Your task to perform on an android device: turn on notifications settings in the gmail app Image 0: 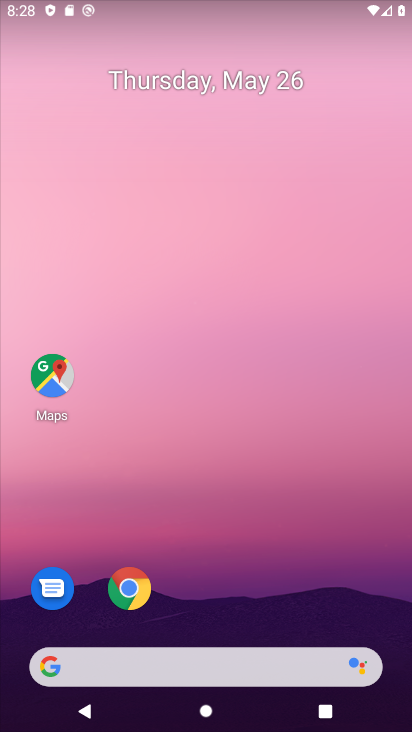
Step 0: drag from (212, 615) to (229, 8)
Your task to perform on an android device: turn on notifications settings in the gmail app Image 1: 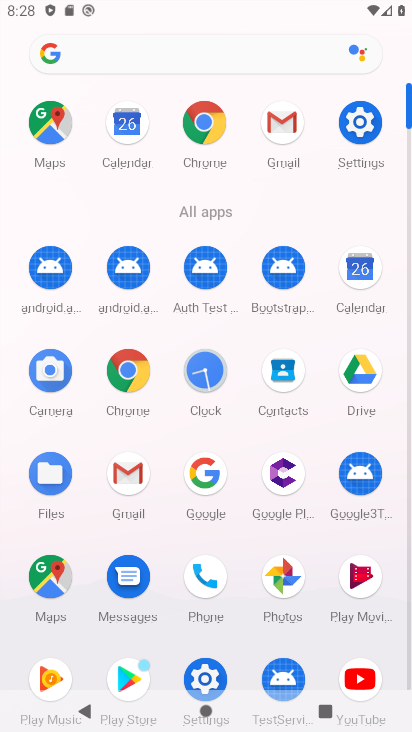
Step 1: click (122, 468)
Your task to perform on an android device: turn on notifications settings in the gmail app Image 2: 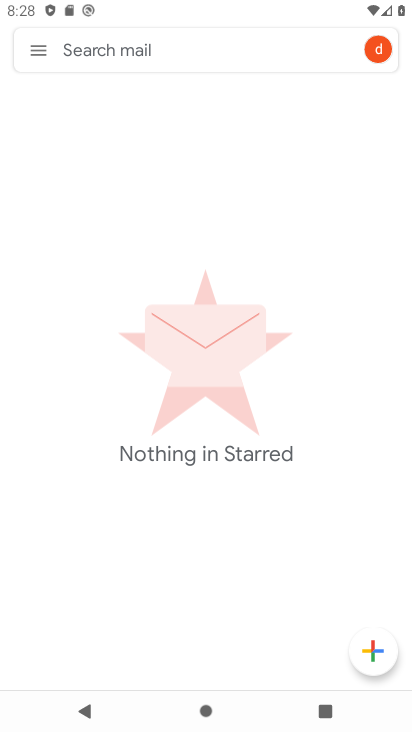
Step 2: click (33, 45)
Your task to perform on an android device: turn on notifications settings in the gmail app Image 3: 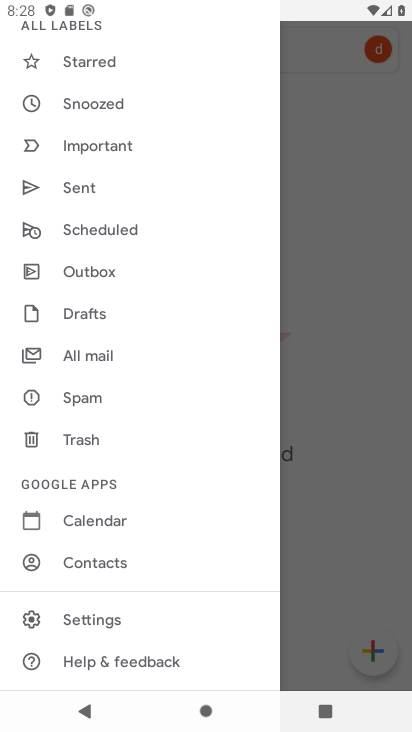
Step 3: click (80, 619)
Your task to perform on an android device: turn on notifications settings in the gmail app Image 4: 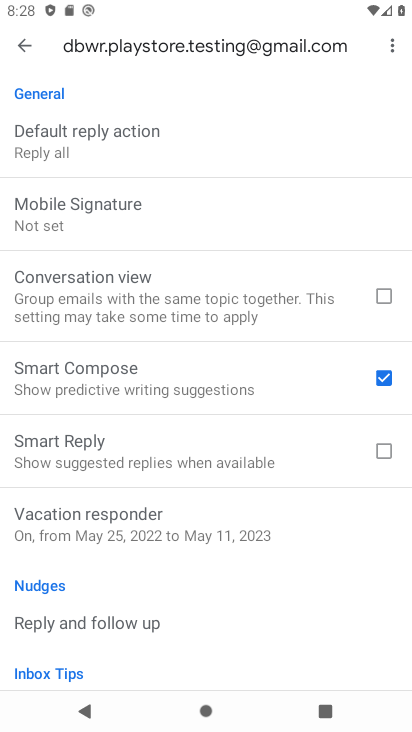
Step 4: drag from (157, 210) to (219, 652)
Your task to perform on an android device: turn on notifications settings in the gmail app Image 5: 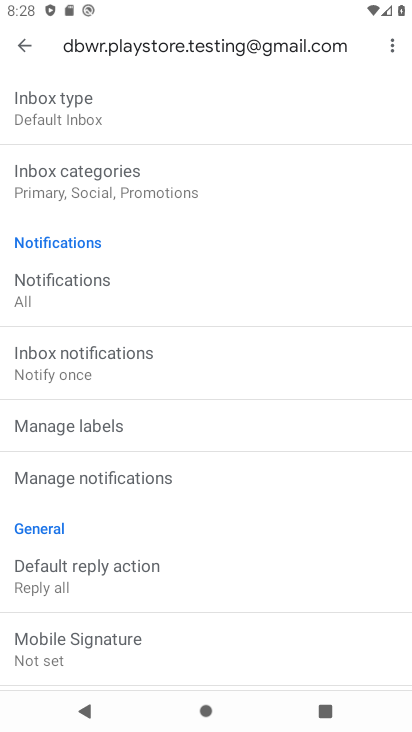
Step 5: click (73, 471)
Your task to perform on an android device: turn on notifications settings in the gmail app Image 6: 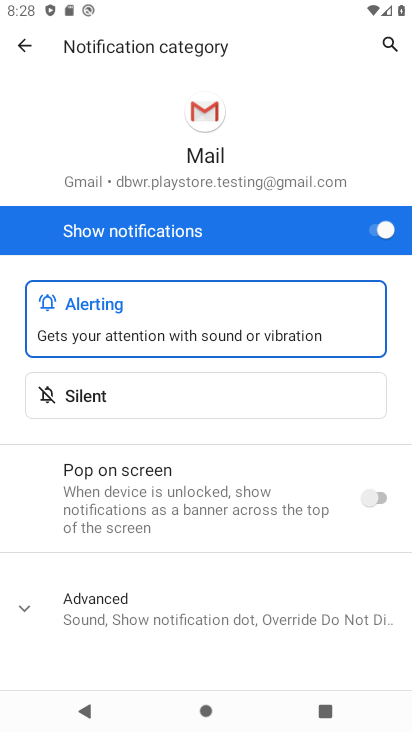
Step 6: task complete